Your task to perform on an android device: turn off improve location accuracy Image 0: 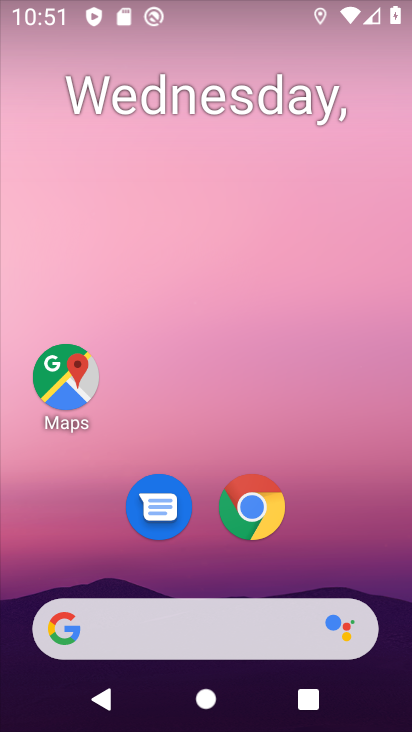
Step 0: drag from (353, 508) to (355, 112)
Your task to perform on an android device: turn off improve location accuracy Image 1: 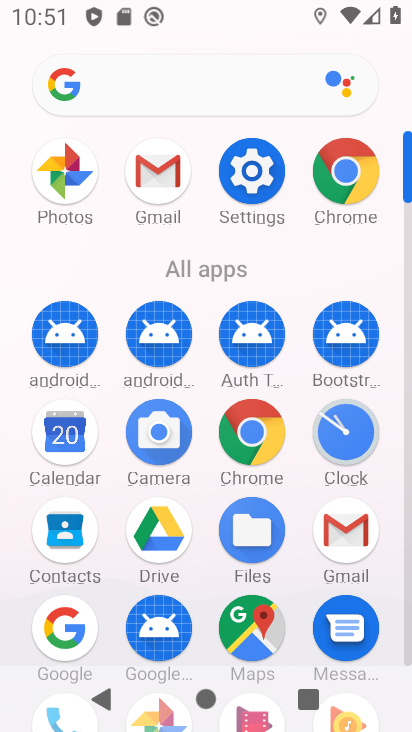
Step 1: click (261, 192)
Your task to perform on an android device: turn off improve location accuracy Image 2: 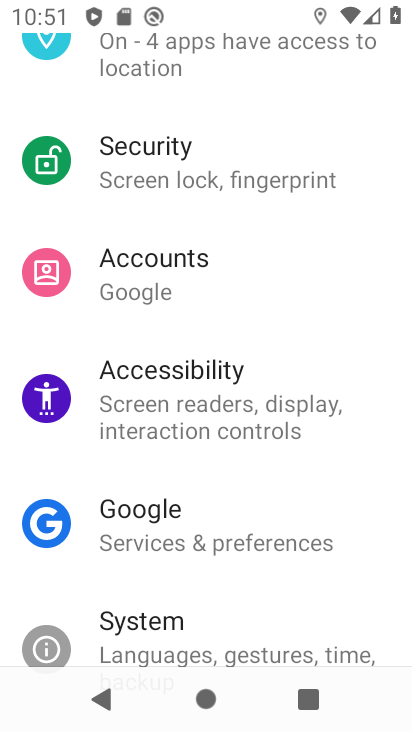
Step 2: drag from (374, 364) to (374, 453)
Your task to perform on an android device: turn off improve location accuracy Image 3: 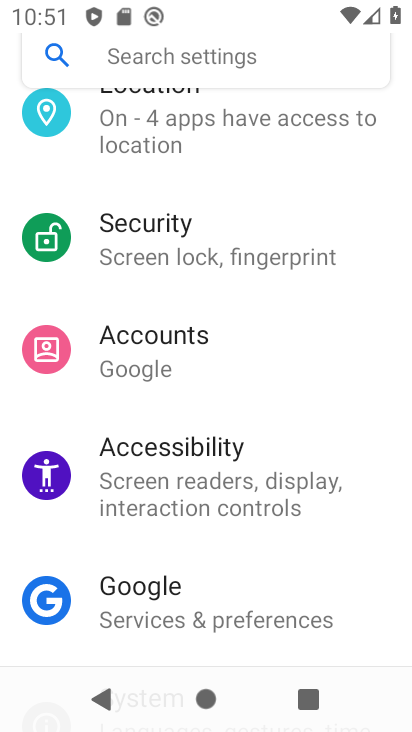
Step 3: drag from (376, 338) to (361, 458)
Your task to perform on an android device: turn off improve location accuracy Image 4: 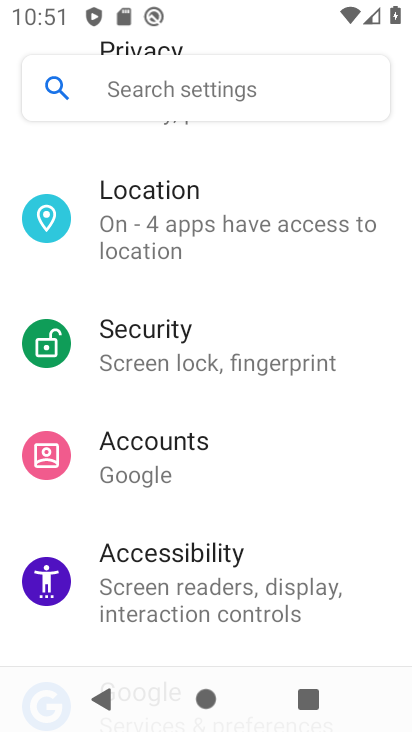
Step 4: drag from (378, 313) to (358, 485)
Your task to perform on an android device: turn off improve location accuracy Image 5: 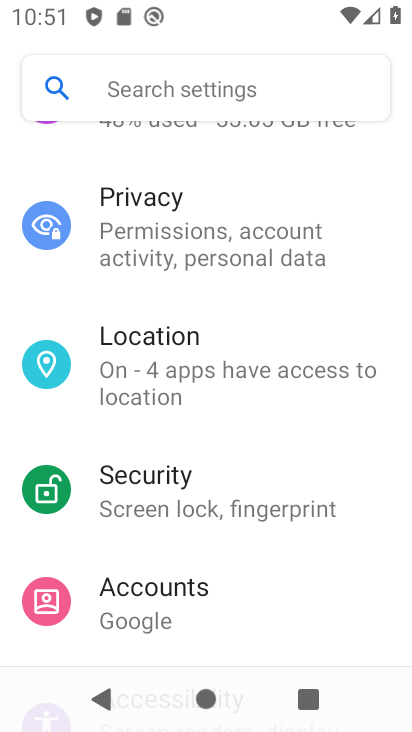
Step 5: click (297, 371)
Your task to perform on an android device: turn off improve location accuracy Image 6: 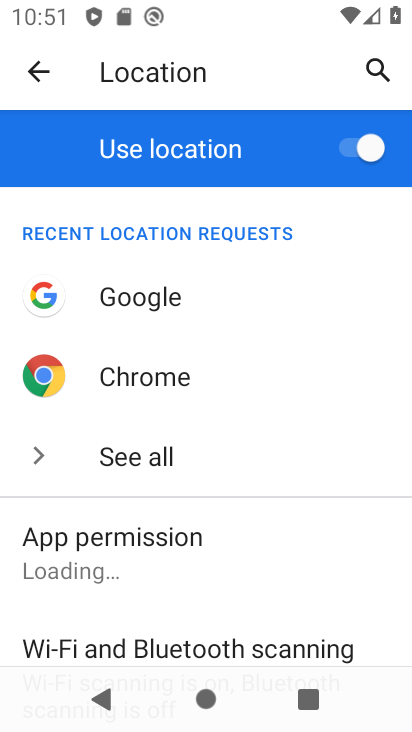
Step 6: drag from (322, 526) to (350, 346)
Your task to perform on an android device: turn off improve location accuracy Image 7: 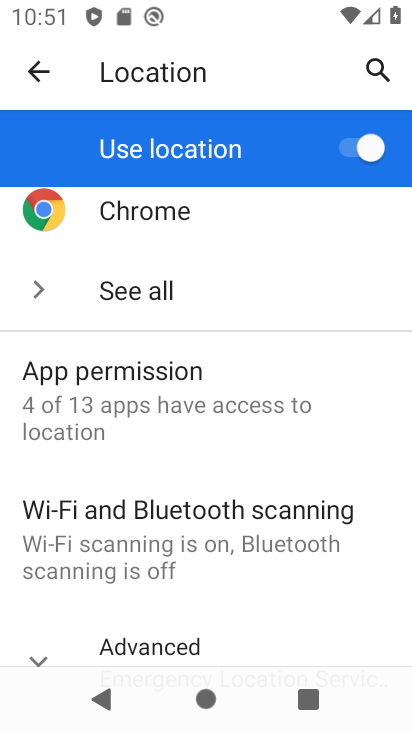
Step 7: drag from (372, 579) to (377, 396)
Your task to perform on an android device: turn off improve location accuracy Image 8: 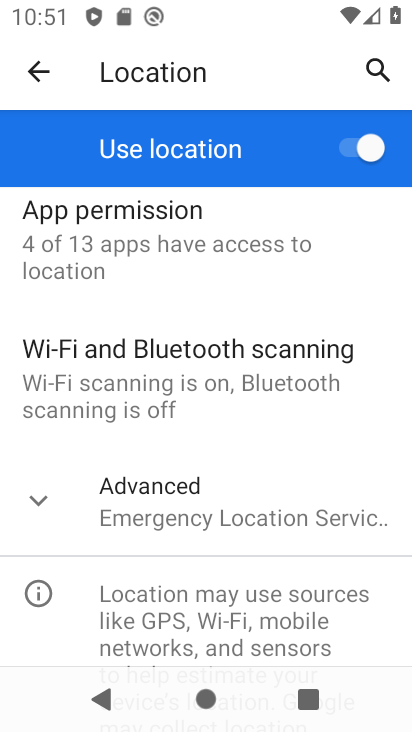
Step 8: click (332, 514)
Your task to perform on an android device: turn off improve location accuracy Image 9: 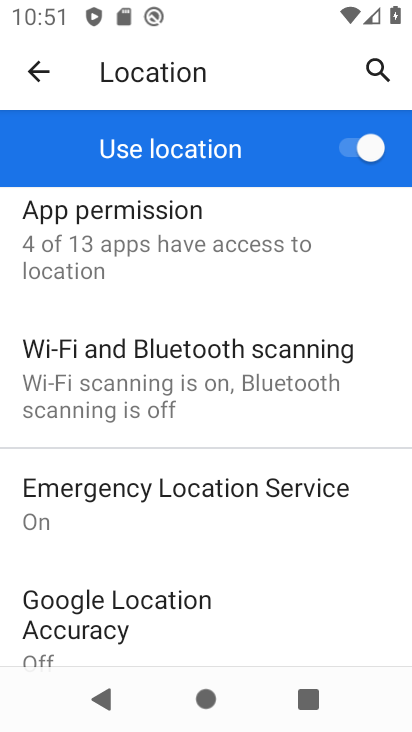
Step 9: drag from (332, 573) to (359, 406)
Your task to perform on an android device: turn off improve location accuracy Image 10: 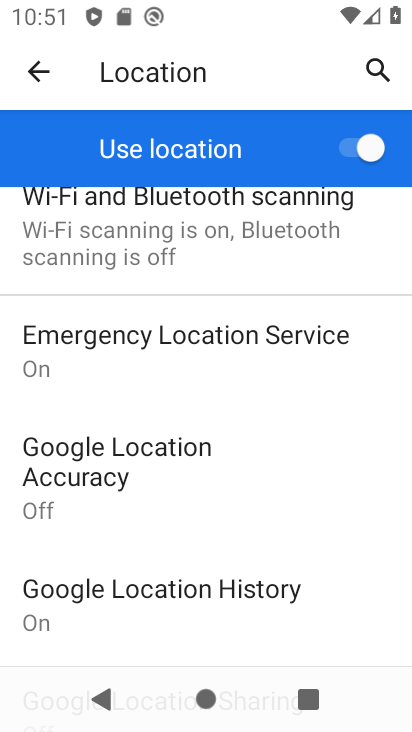
Step 10: drag from (342, 589) to (357, 433)
Your task to perform on an android device: turn off improve location accuracy Image 11: 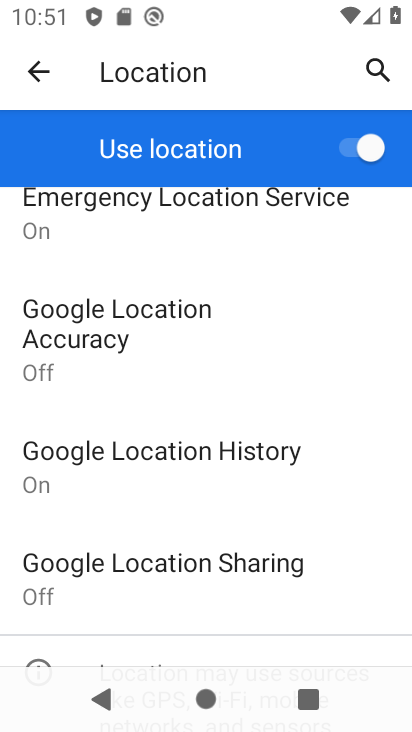
Step 11: click (109, 336)
Your task to perform on an android device: turn off improve location accuracy Image 12: 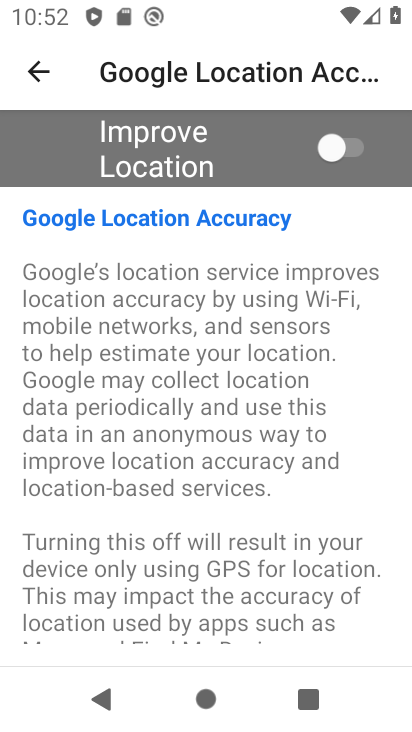
Step 12: task complete